Your task to perform on an android device: turn off notifications settings in the gmail app Image 0: 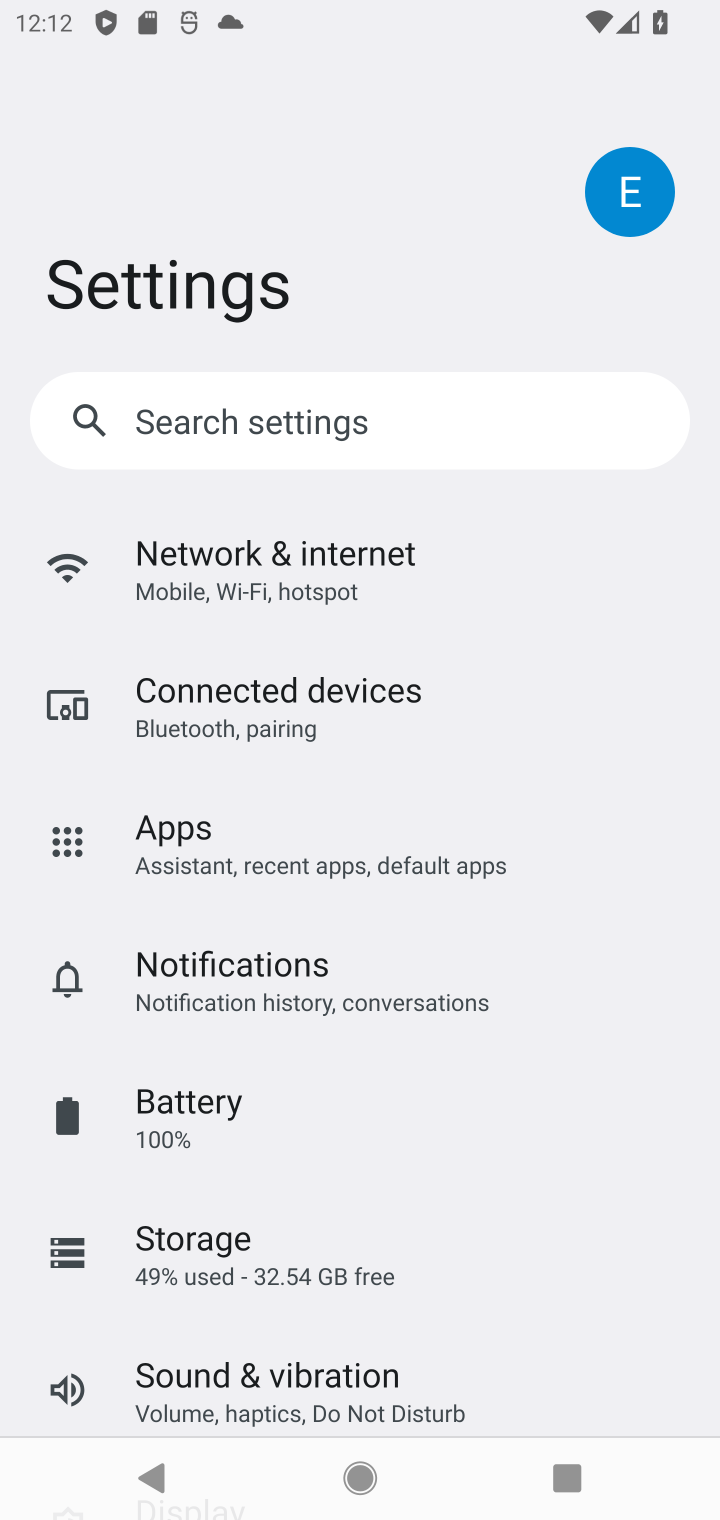
Step 0: press home button
Your task to perform on an android device: turn off notifications settings in the gmail app Image 1: 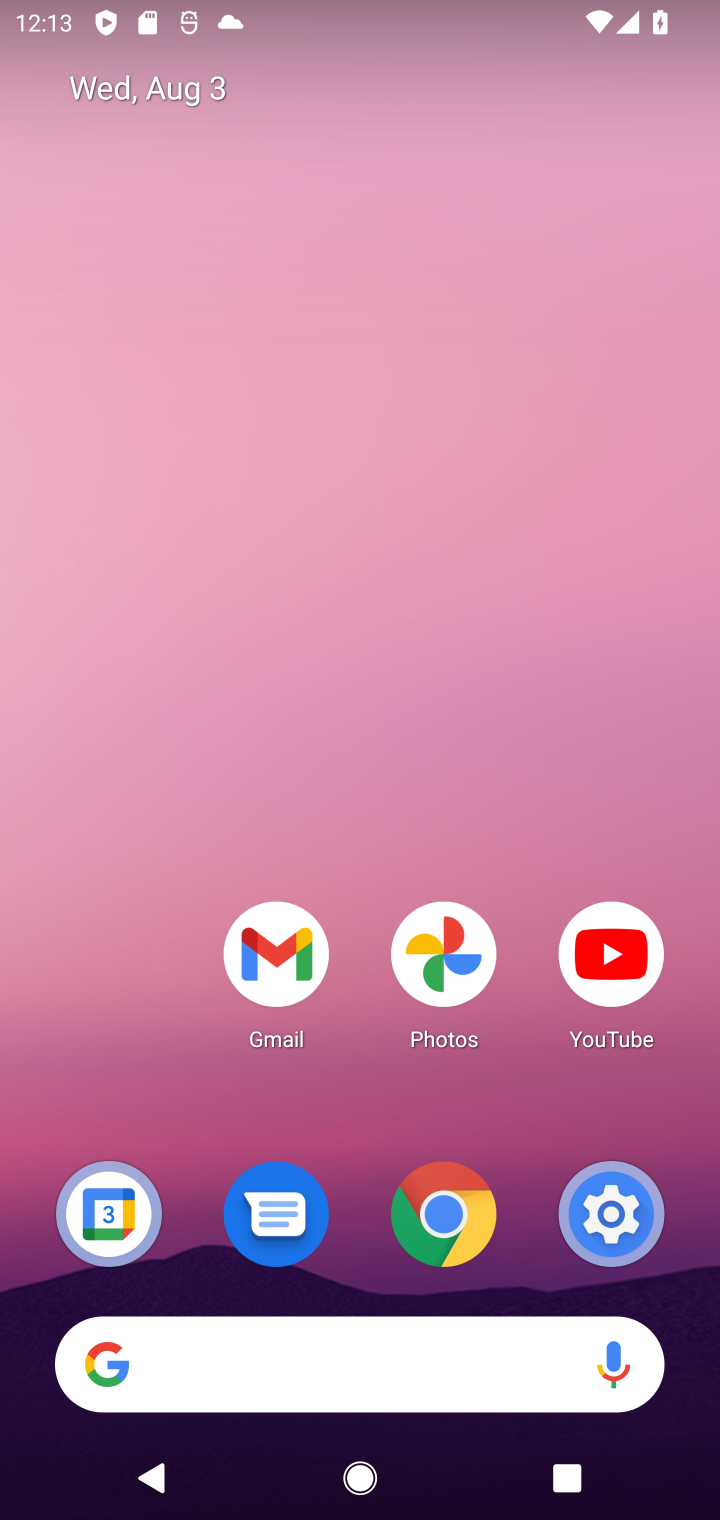
Step 1: click (254, 958)
Your task to perform on an android device: turn off notifications settings in the gmail app Image 2: 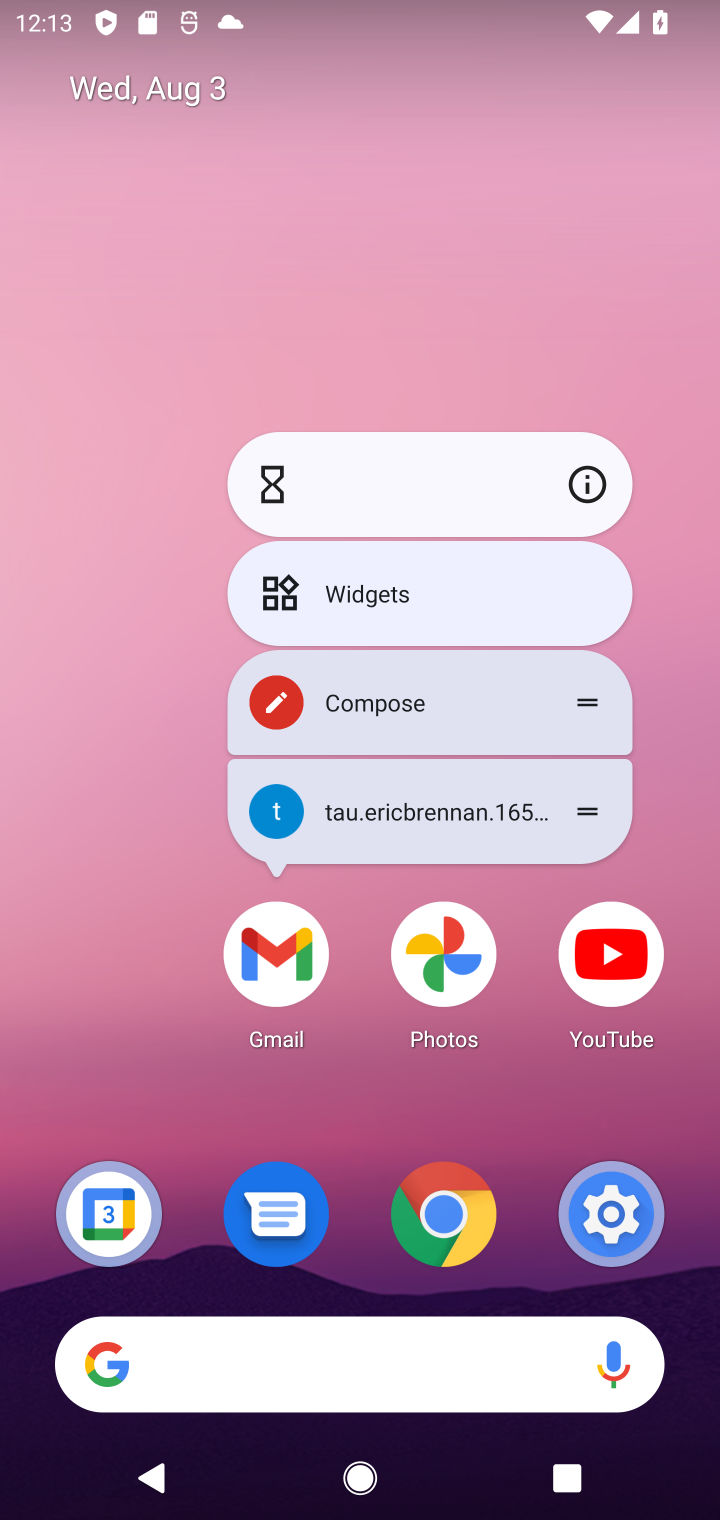
Step 2: click (602, 486)
Your task to perform on an android device: turn off notifications settings in the gmail app Image 3: 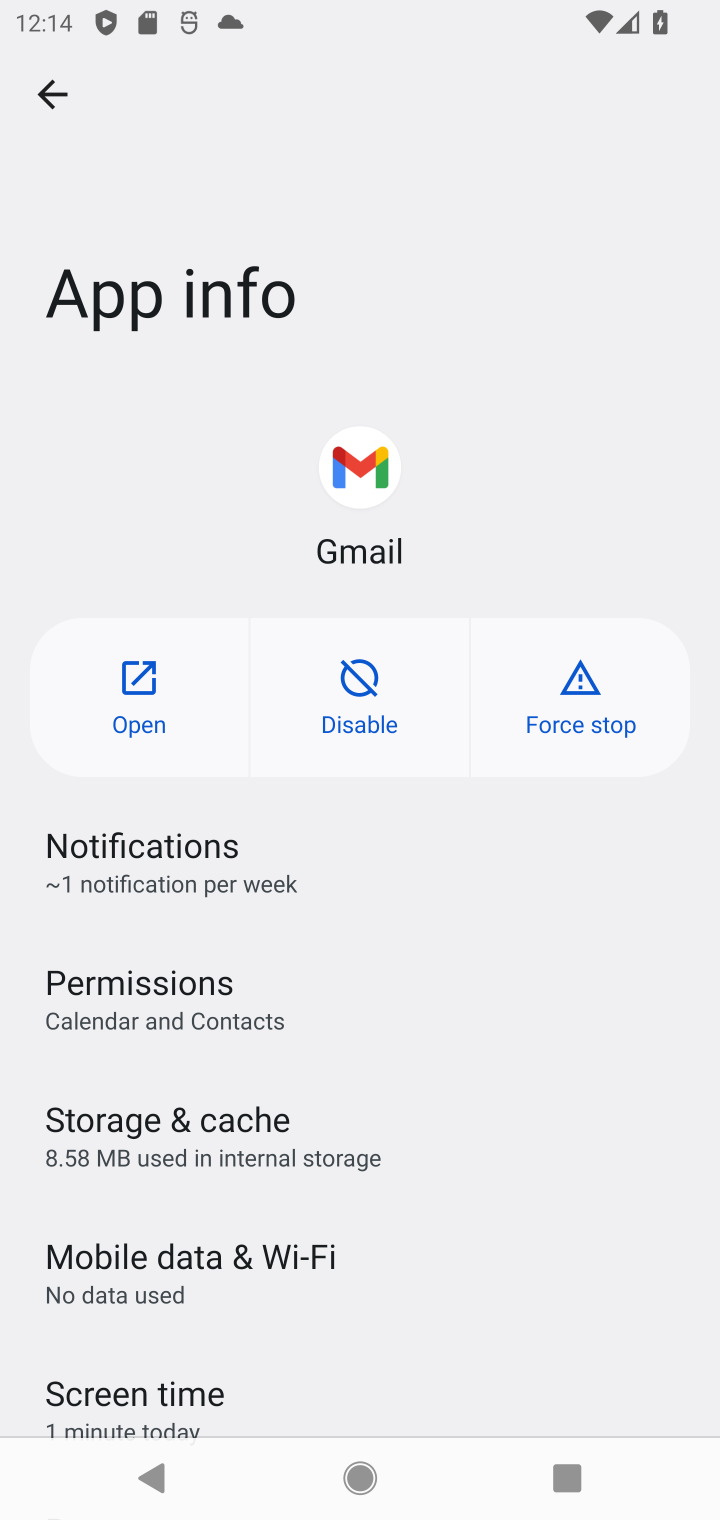
Step 3: click (348, 863)
Your task to perform on an android device: turn off notifications settings in the gmail app Image 4: 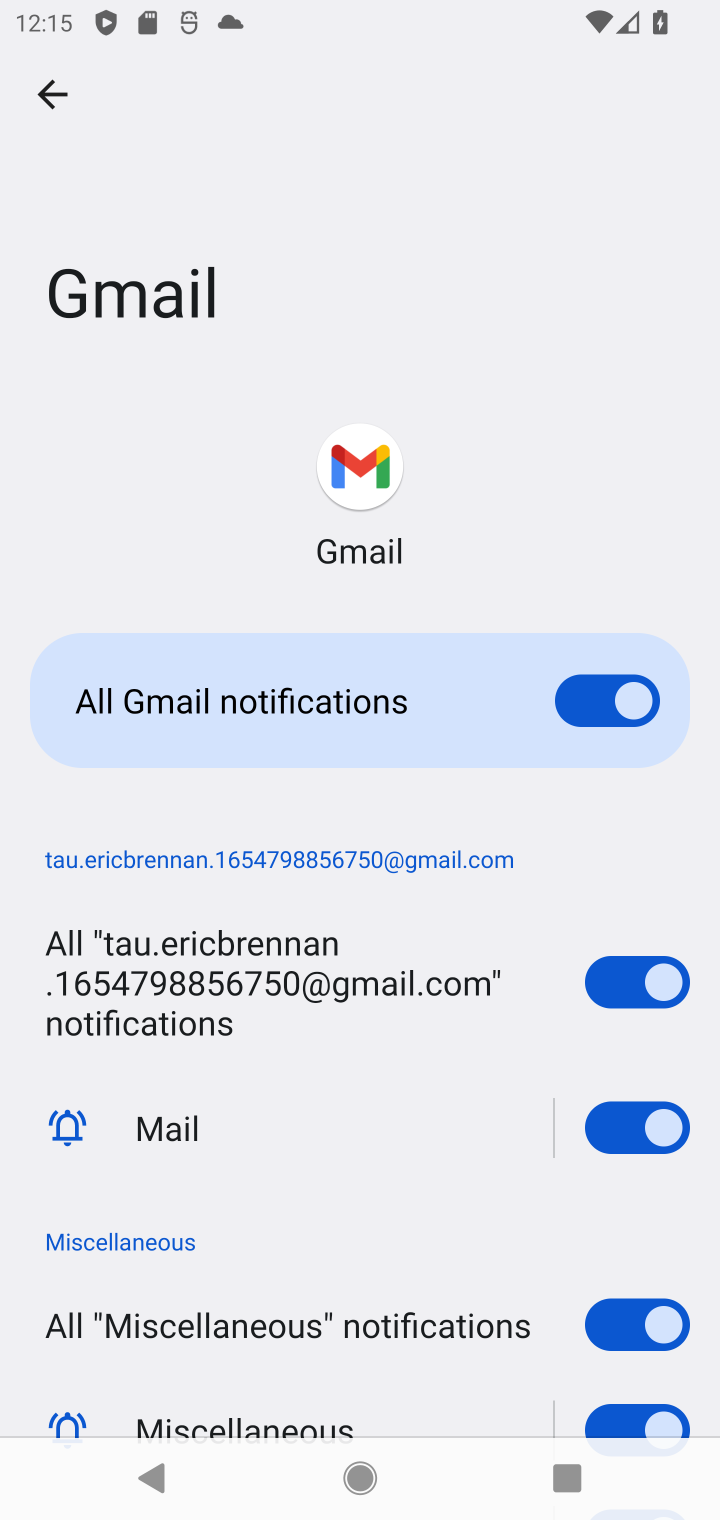
Step 4: click (635, 701)
Your task to perform on an android device: turn off notifications settings in the gmail app Image 5: 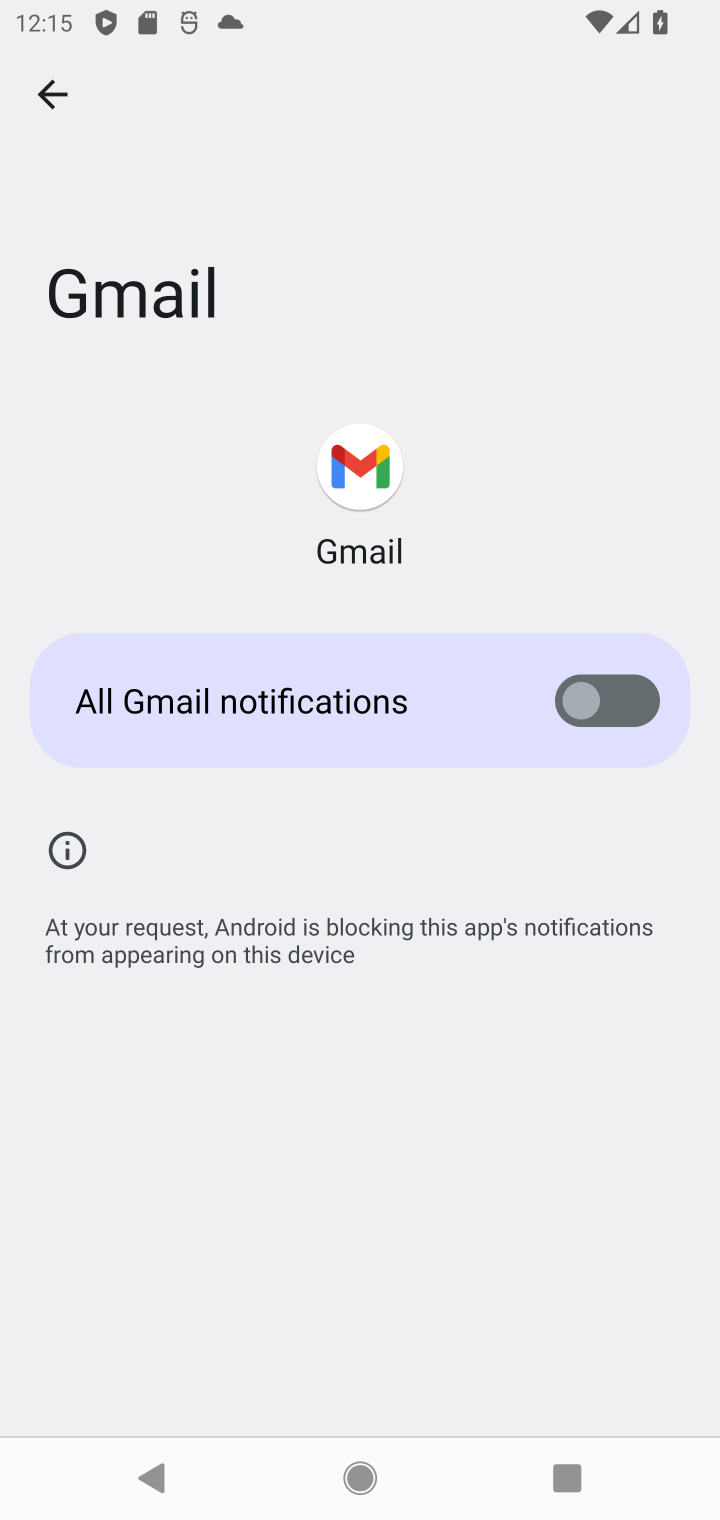
Step 5: task complete